Your task to perform on an android device: Open calendar and show me the third week of next month Image 0: 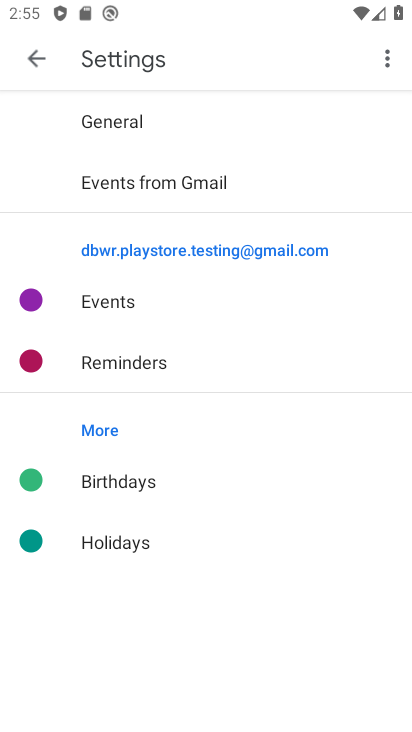
Step 0: press home button
Your task to perform on an android device: Open calendar and show me the third week of next month Image 1: 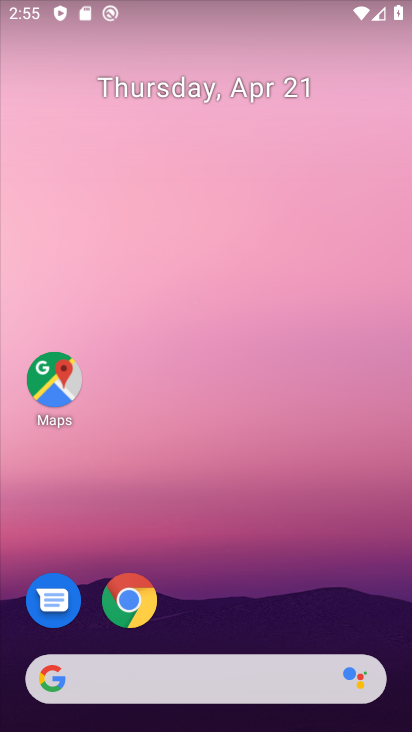
Step 1: drag from (175, 673) to (295, 173)
Your task to perform on an android device: Open calendar and show me the third week of next month Image 2: 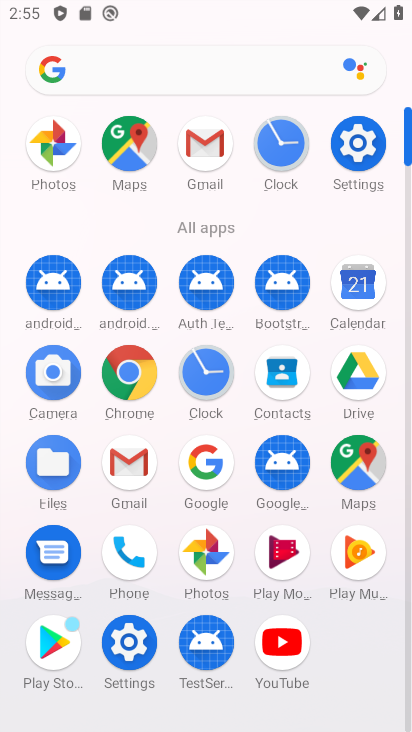
Step 2: click (363, 295)
Your task to perform on an android device: Open calendar and show me the third week of next month Image 3: 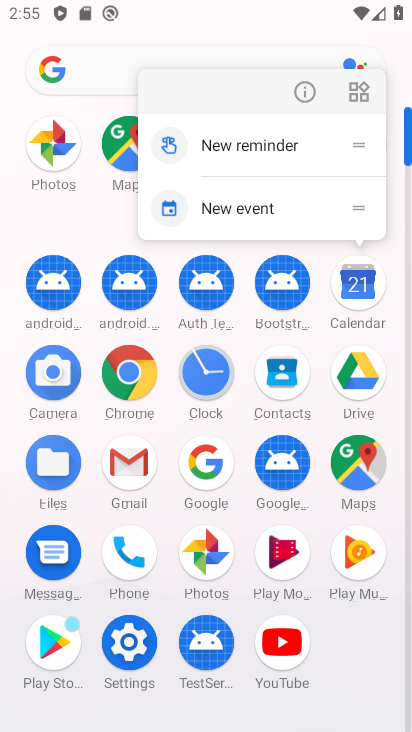
Step 3: click (361, 292)
Your task to perform on an android device: Open calendar and show me the third week of next month Image 4: 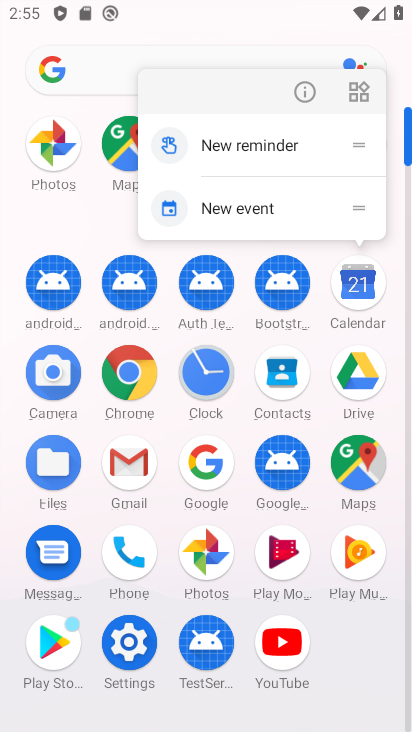
Step 4: click (361, 288)
Your task to perform on an android device: Open calendar and show me the third week of next month Image 5: 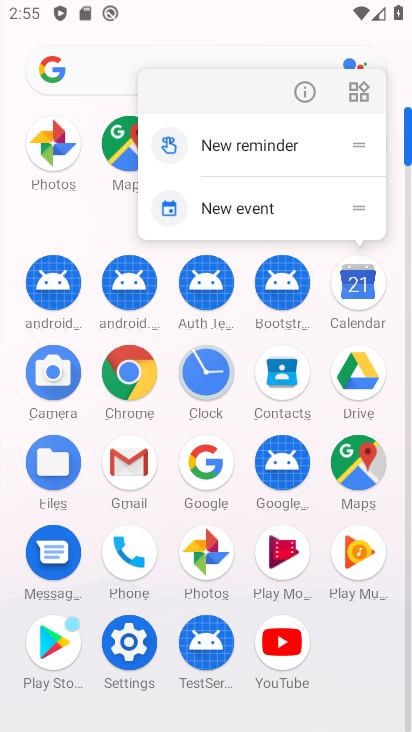
Step 5: click (358, 288)
Your task to perform on an android device: Open calendar and show me the third week of next month Image 6: 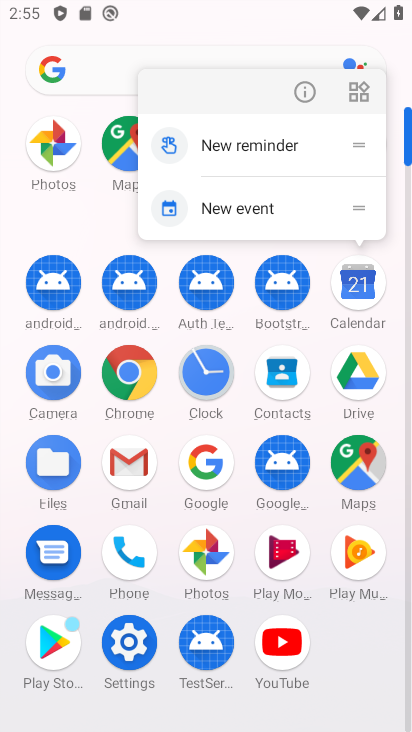
Step 6: click (357, 296)
Your task to perform on an android device: Open calendar and show me the third week of next month Image 7: 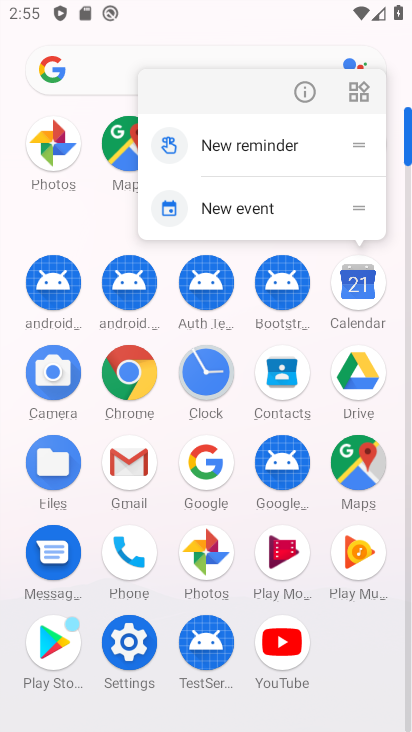
Step 7: click (362, 289)
Your task to perform on an android device: Open calendar and show me the third week of next month Image 8: 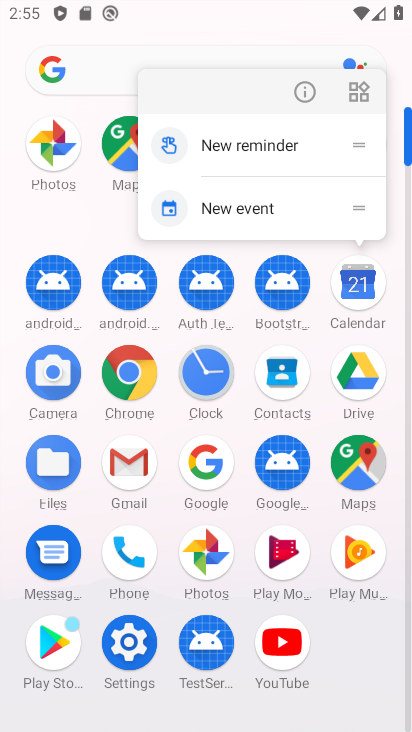
Step 8: click (356, 296)
Your task to perform on an android device: Open calendar and show me the third week of next month Image 9: 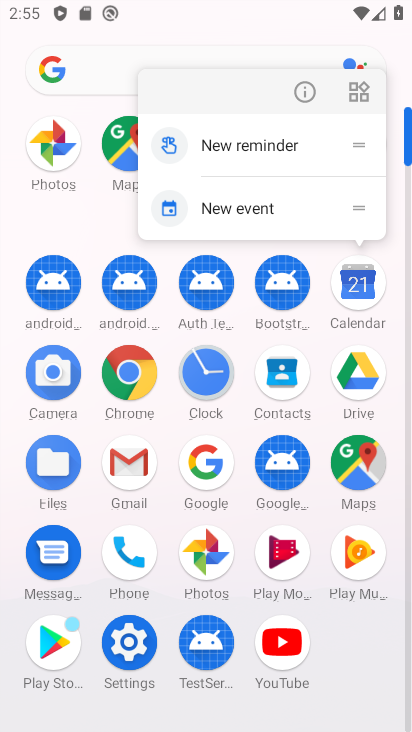
Step 9: click (359, 292)
Your task to perform on an android device: Open calendar and show me the third week of next month Image 10: 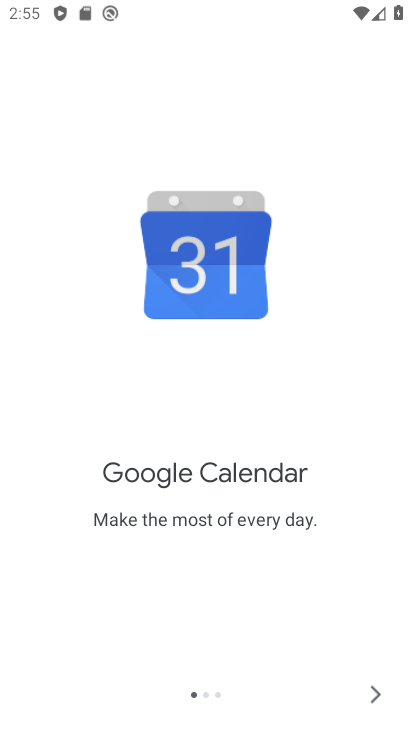
Step 10: click (367, 684)
Your task to perform on an android device: Open calendar and show me the third week of next month Image 11: 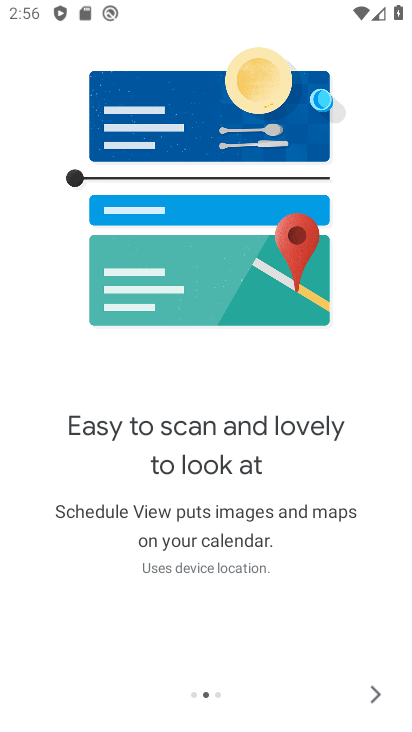
Step 11: click (367, 682)
Your task to perform on an android device: Open calendar and show me the third week of next month Image 12: 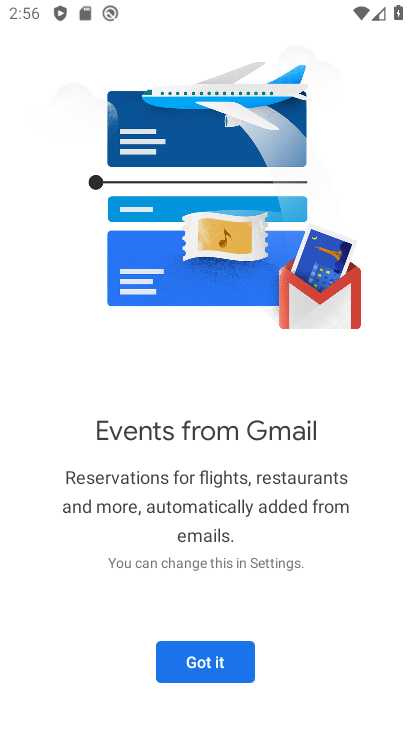
Step 12: click (229, 663)
Your task to perform on an android device: Open calendar and show me the third week of next month Image 13: 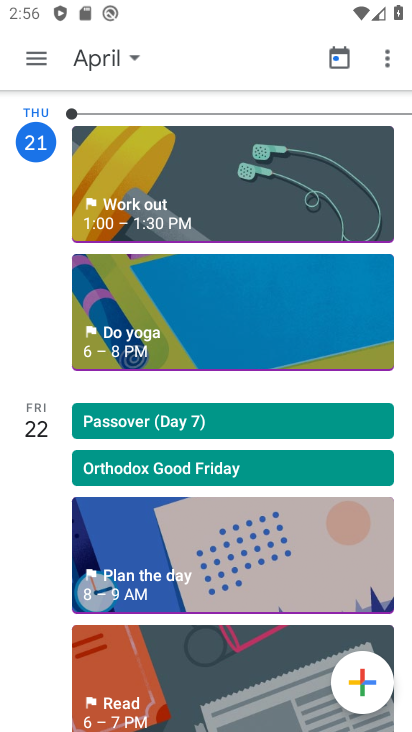
Step 13: click (89, 60)
Your task to perform on an android device: Open calendar and show me the third week of next month Image 14: 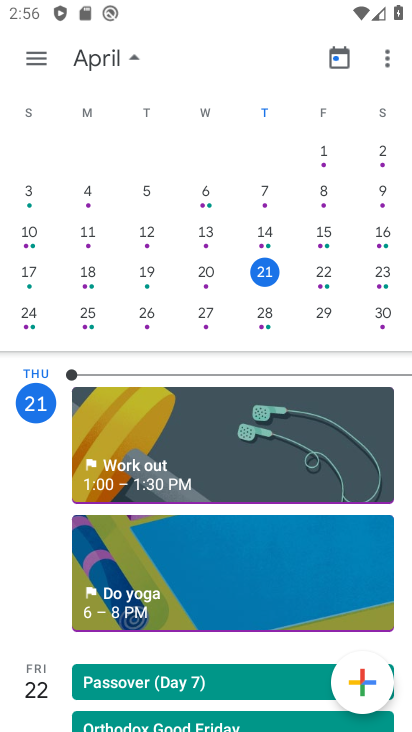
Step 14: drag from (271, 246) to (54, 256)
Your task to perform on an android device: Open calendar and show me the third week of next month Image 15: 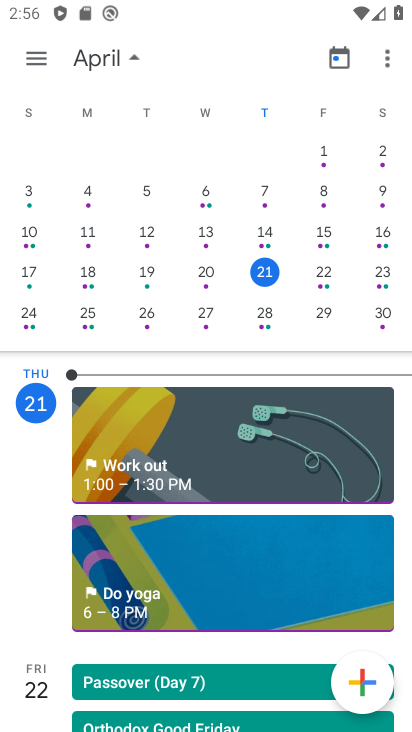
Step 15: drag from (371, 214) to (2, 239)
Your task to perform on an android device: Open calendar and show me the third week of next month Image 16: 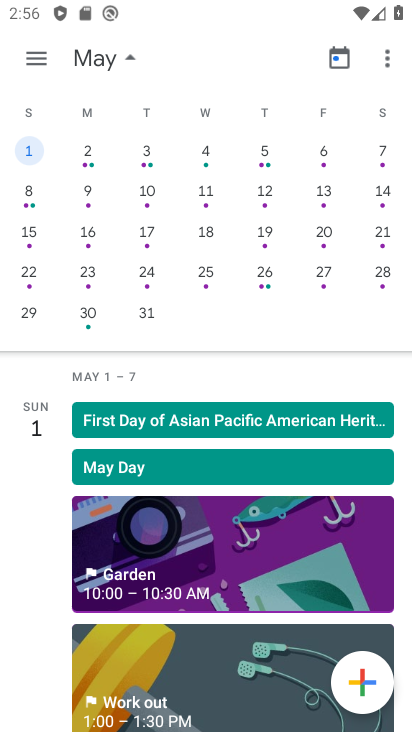
Step 16: click (32, 233)
Your task to perform on an android device: Open calendar and show me the third week of next month Image 17: 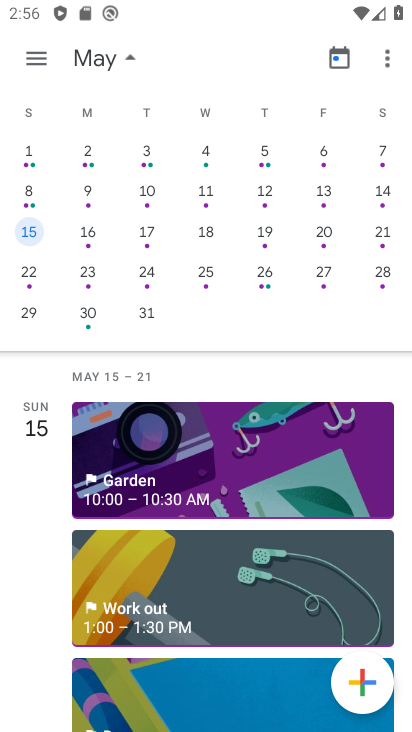
Step 17: click (35, 55)
Your task to perform on an android device: Open calendar and show me the third week of next month Image 18: 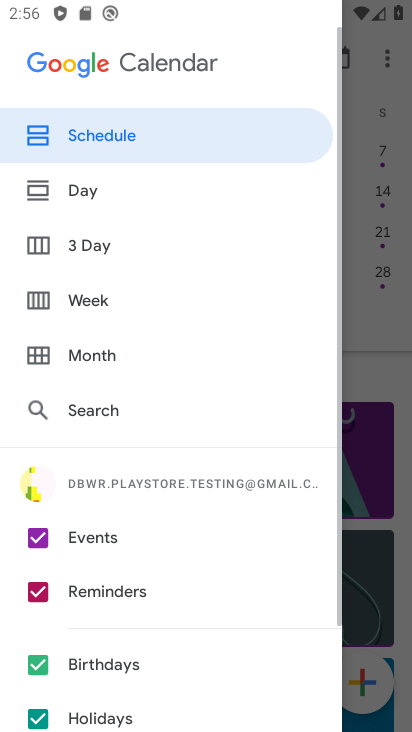
Step 18: click (93, 300)
Your task to perform on an android device: Open calendar and show me the third week of next month Image 19: 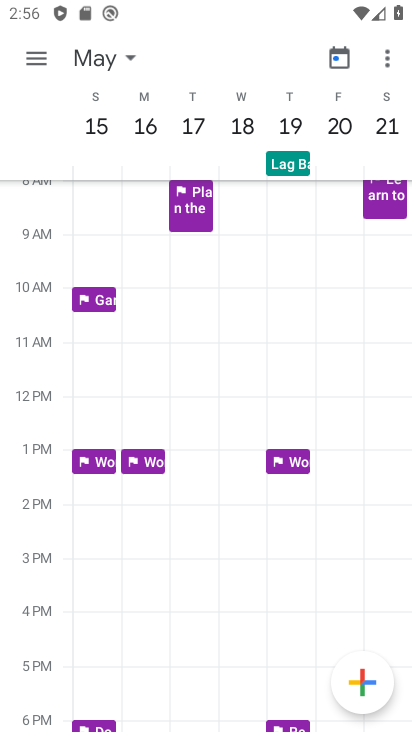
Step 19: task complete